Your task to perform on an android device: What is the recent news? Image 0: 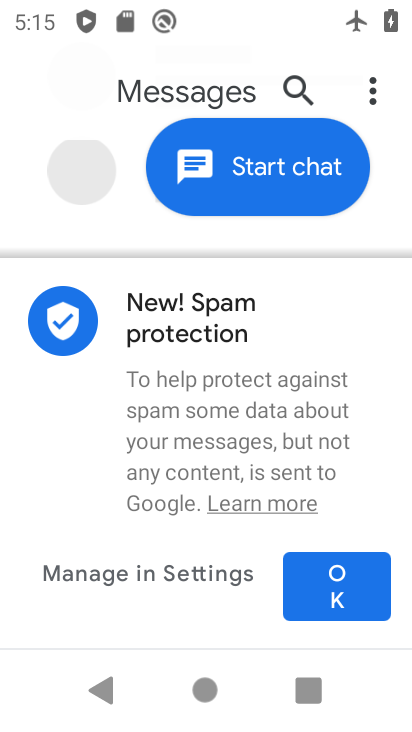
Step 0: press home button
Your task to perform on an android device: What is the recent news? Image 1: 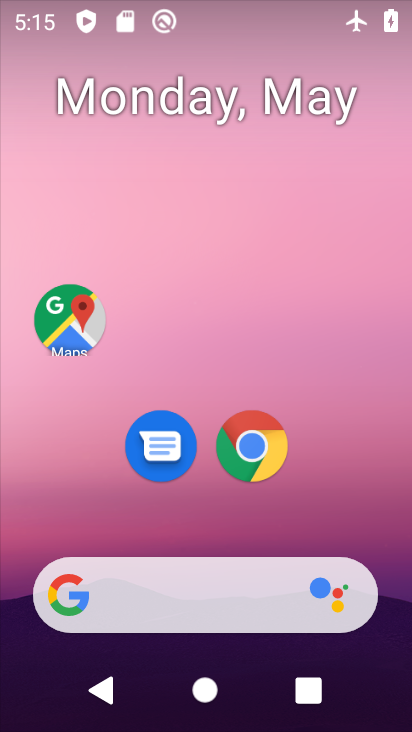
Step 1: click (248, 596)
Your task to perform on an android device: What is the recent news? Image 2: 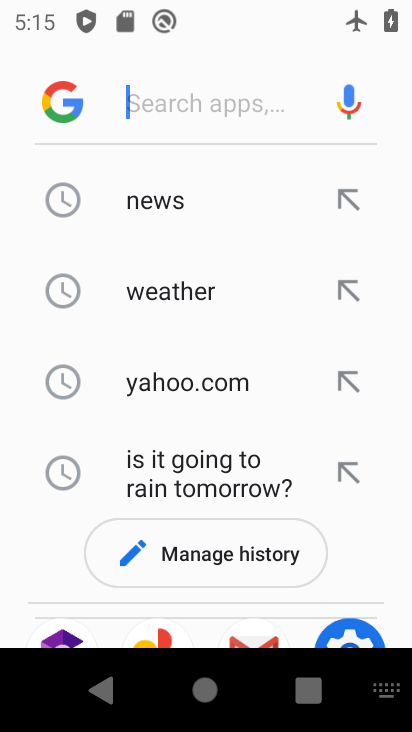
Step 2: click (169, 194)
Your task to perform on an android device: What is the recent news? Image 3: 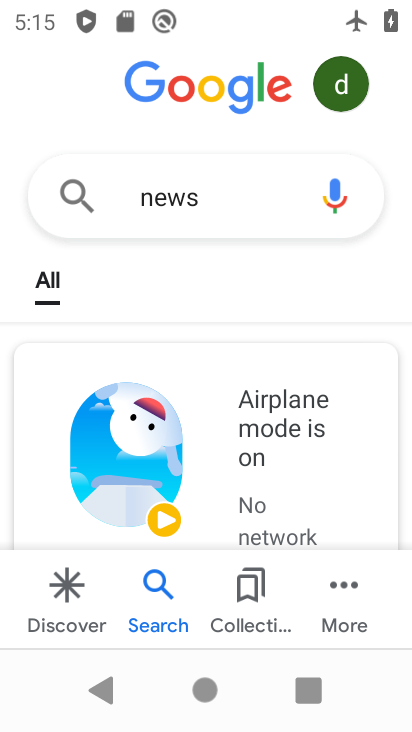
Step 3: task complete